Your task to perform on an android device: open app "Upside-Cash back on gas & food" Image 0: 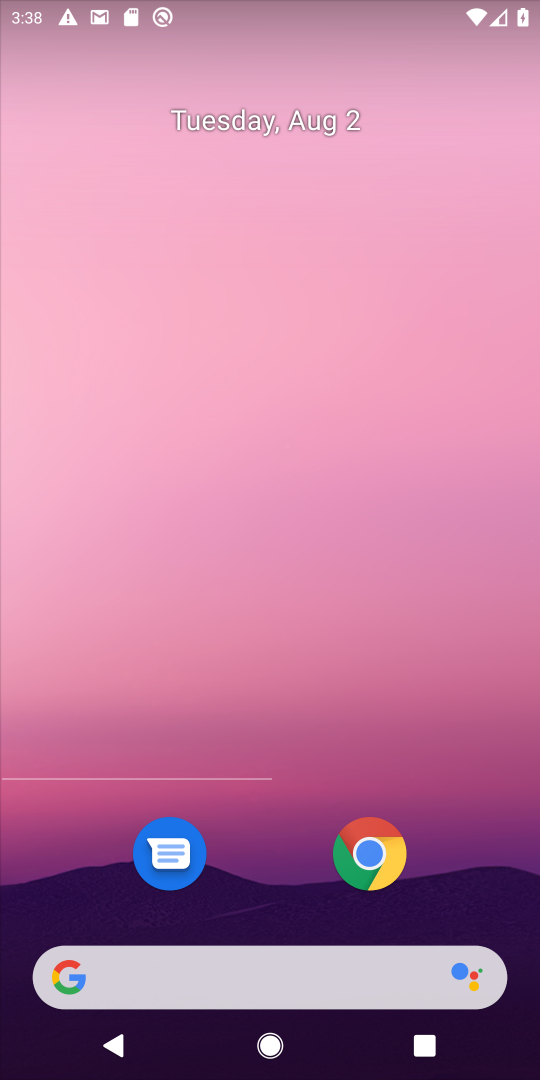
Step 0: press home button
Your task to perform on an android device: open app "Upside-Cash back on gas & food" Image 1: 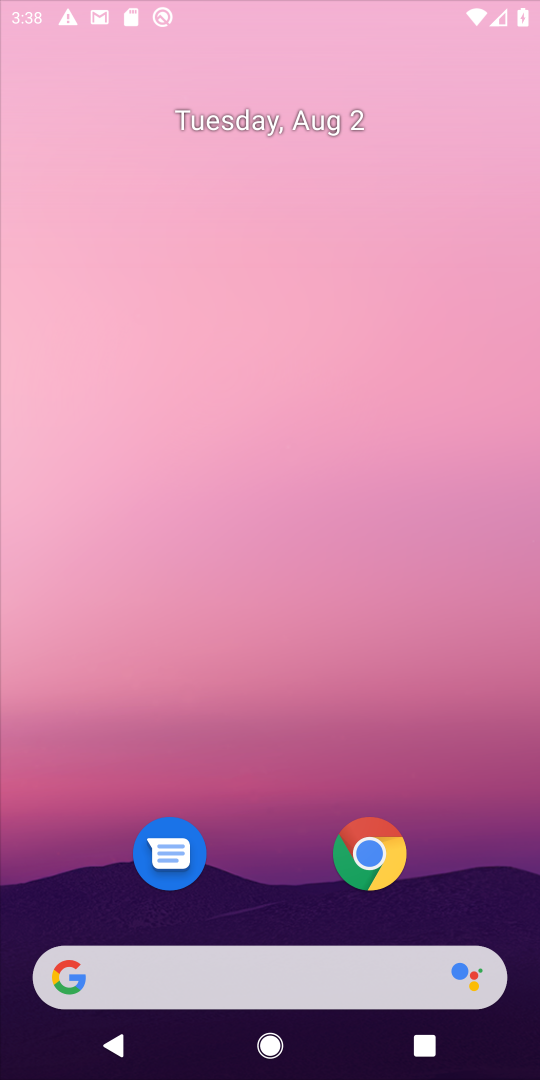
Step 1: drag from (306, 1010) to (306, 714)
Your task to perform on an android device: open app "Upside-Cash back on gas & food" Image 2: 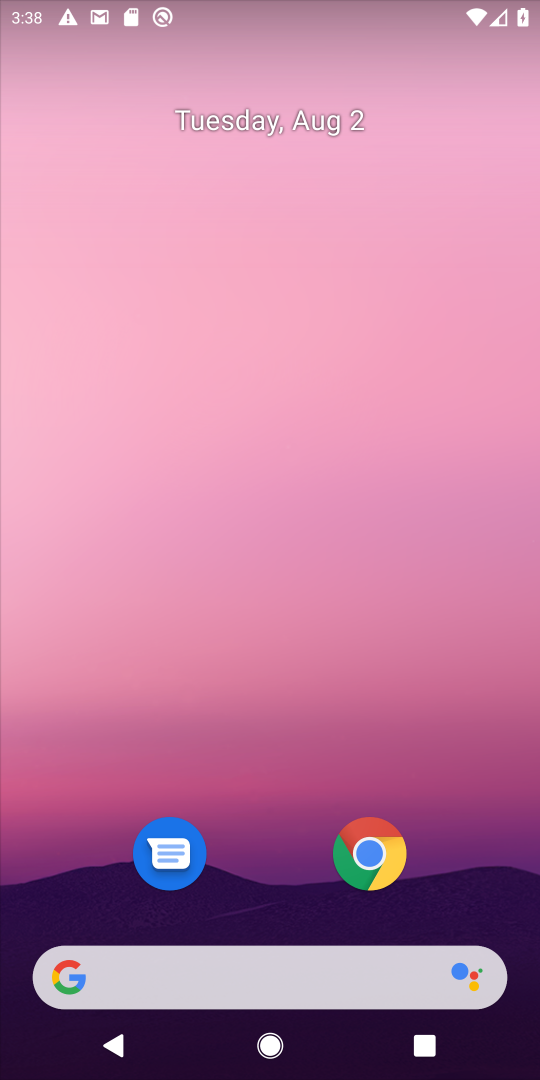
Step 2: drag from (297, 1027) to (291, 73)
Your task to perform on an android device: open app "Upside-Cash back on gas & food" Image 3: 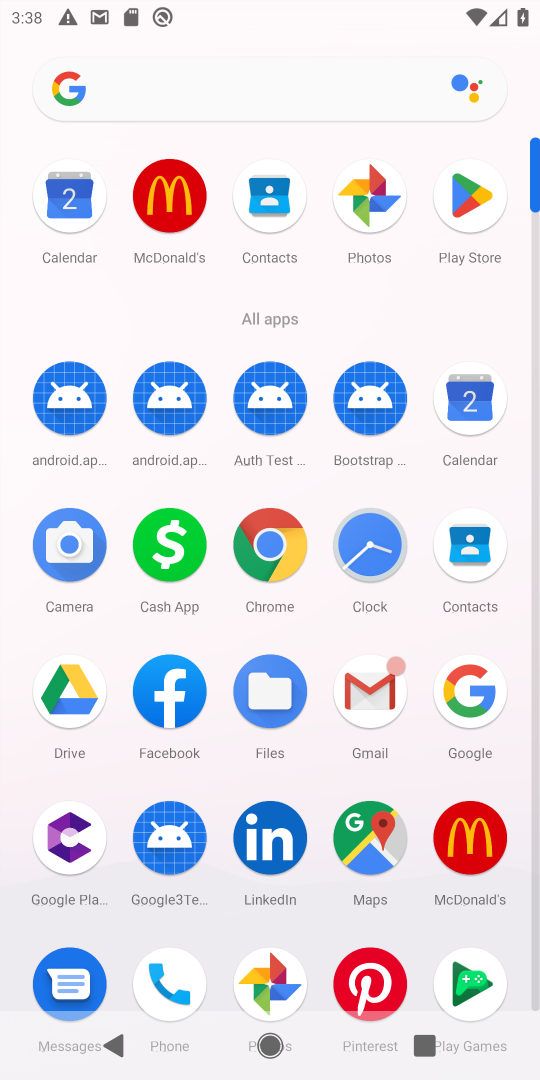
Step 3: click (461, 209)
Your task to perform on an android device: open app "Upside-Cash back on gas & food" Image 4: 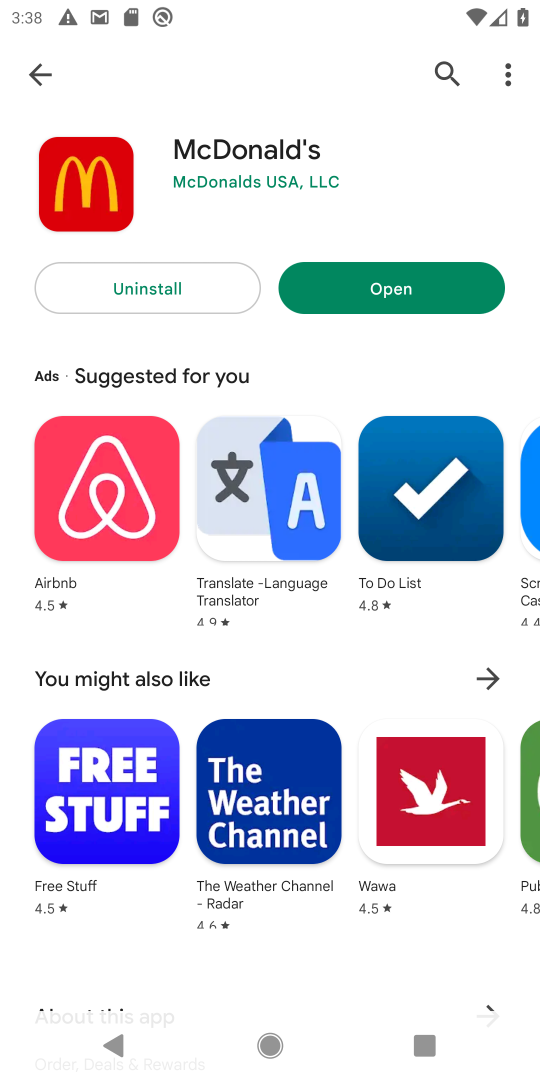
Step 4: click (445, 64)
Your task to perform on an android device: open app "Upside-Cash back on gas & food" Image 5: 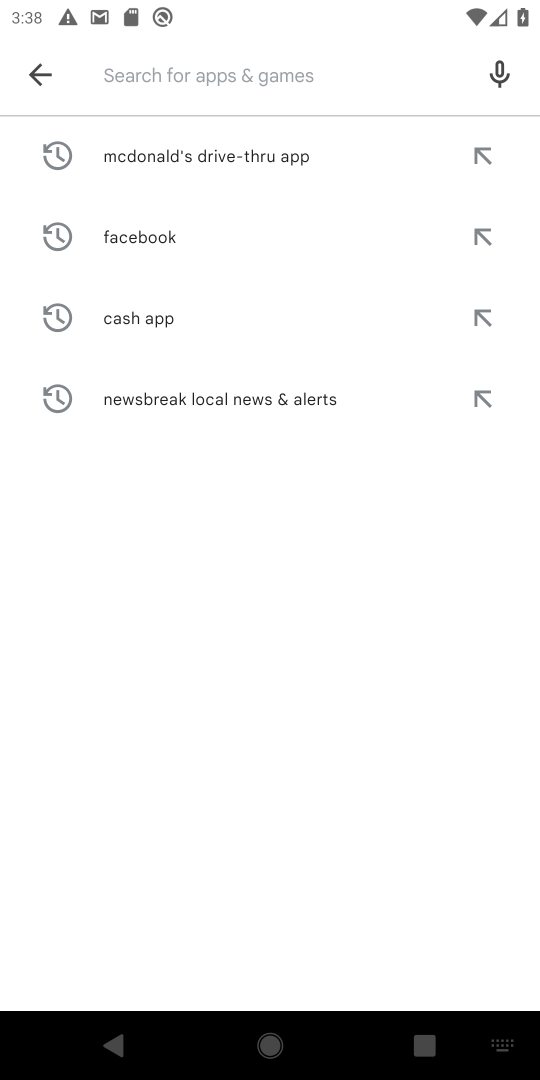
Step 5: type "Upside-Cash back on gas & food"
Your task to perform on an android device: open app "Upside-Cash back on gas & food" Image 6: 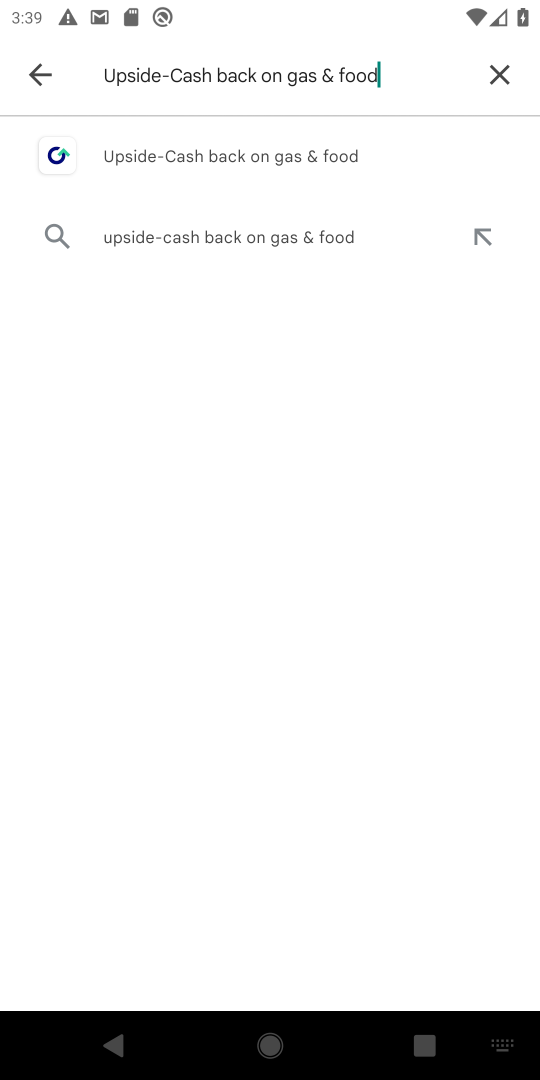
Step 6: click (213, 152)
Your task to perform on an android device: open app "Upside-Cash back on gas & food" Image 7: 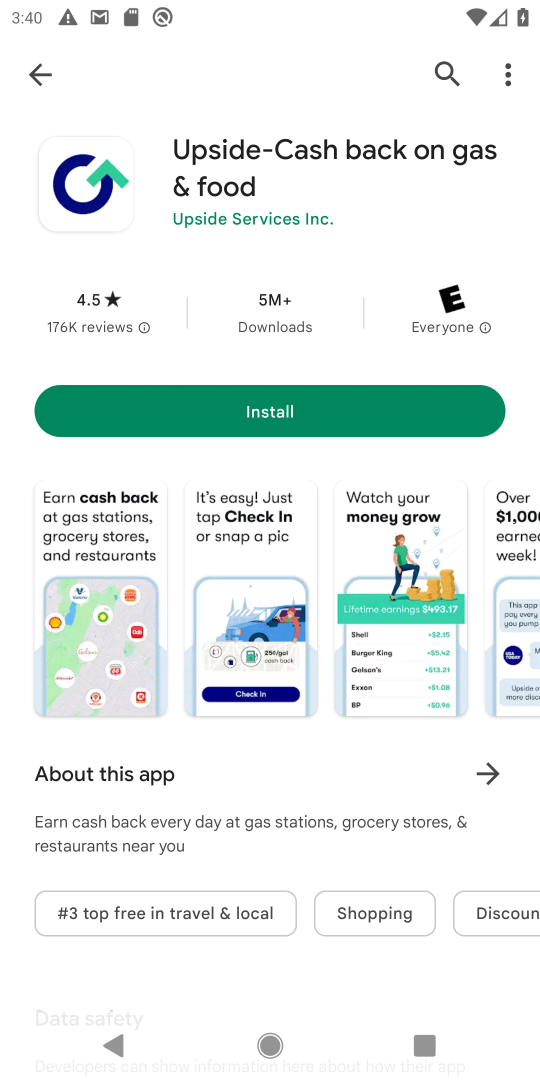
Step 7: task complete